Your task to perform on an android device: Go to ESPN.com Image 0: 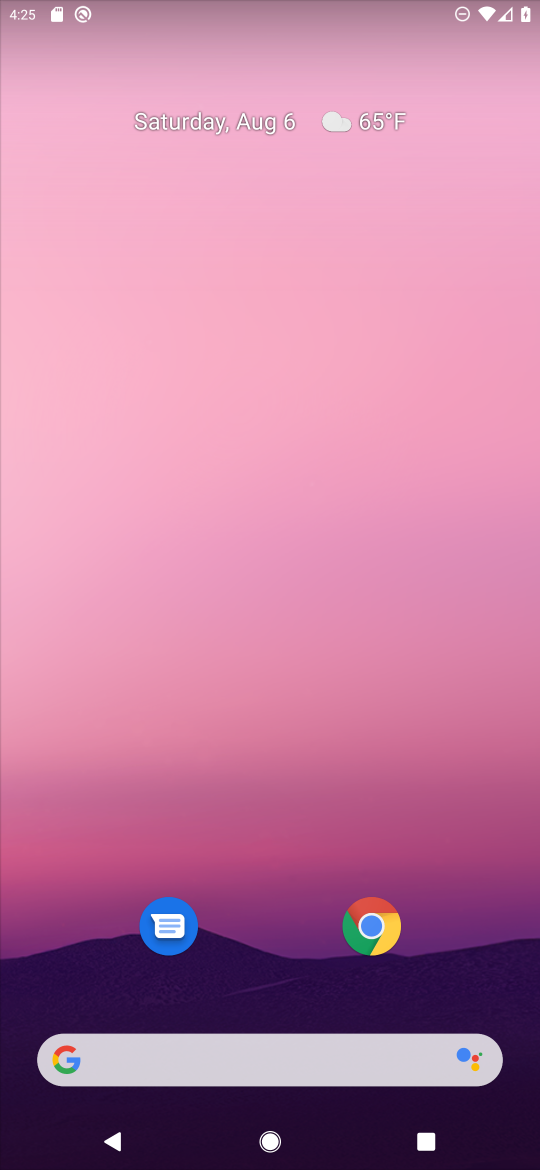
Step 0: click (370, 905)
Your task to perform on an android device: Go to ESPN.com Image 1: 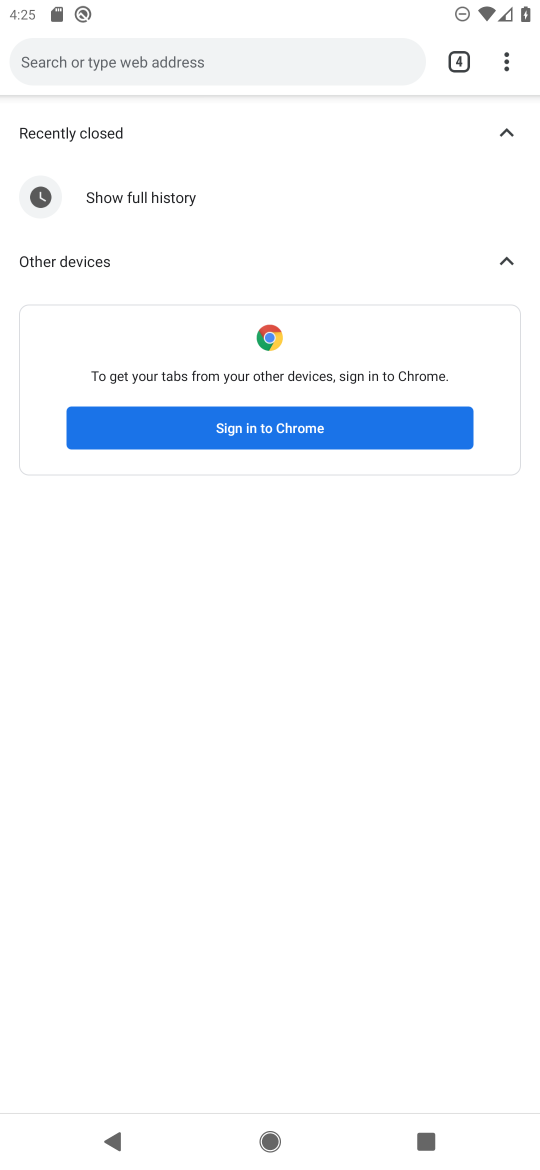
Step 1: click (462, 58)
Your task to perform on an android device: Go to ESPN.com Image 2: 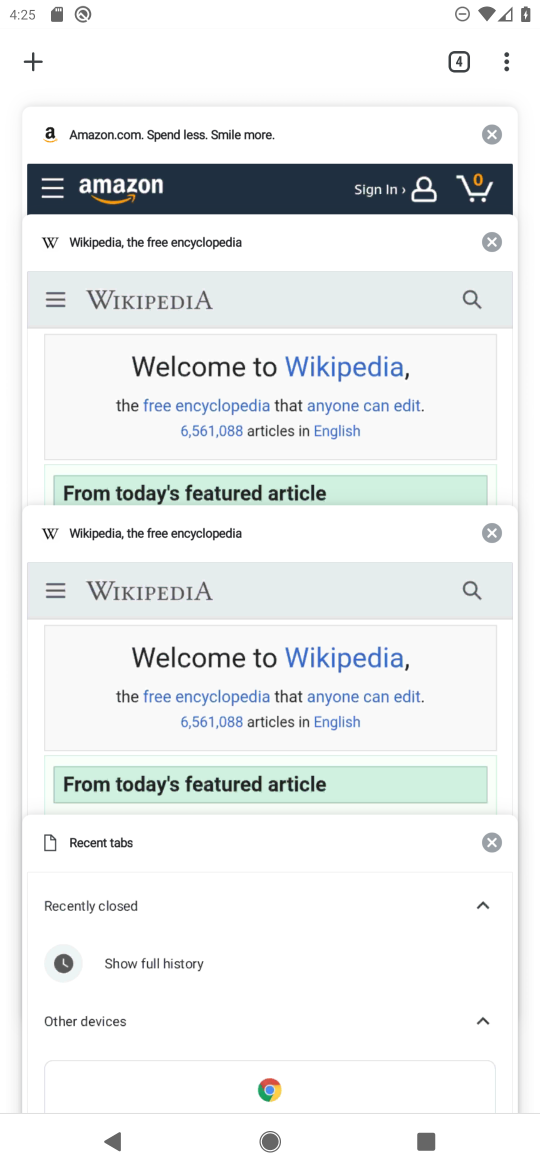
Step 2: click (27, 63)
Your task to perform on an android device: Go to ESPN.com Image 3: 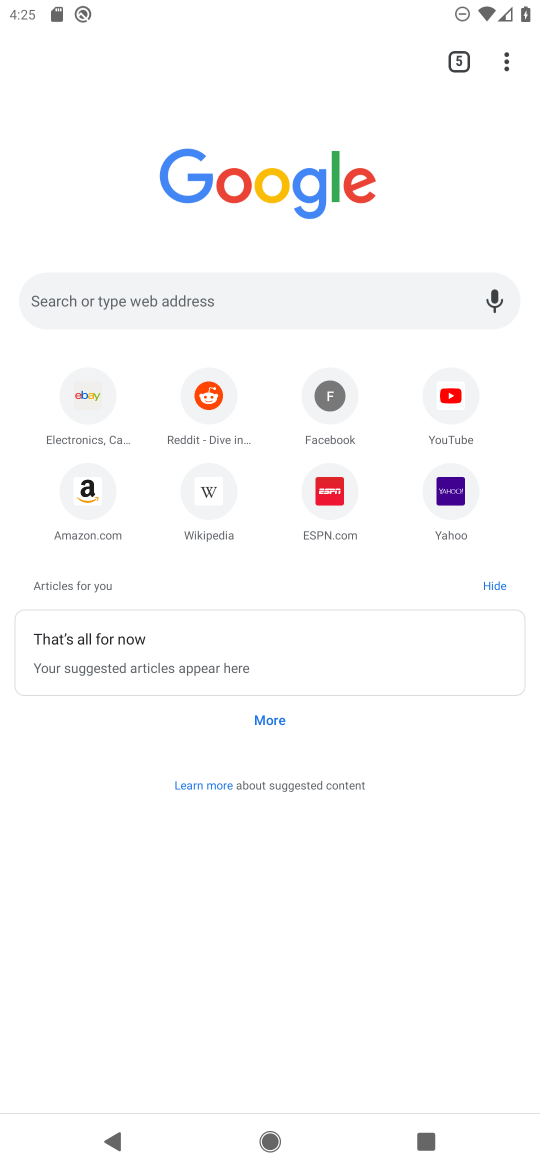
Step 3: click (234, 296)
Your task to perform on an android device: Go to ESPN.com Image 4: 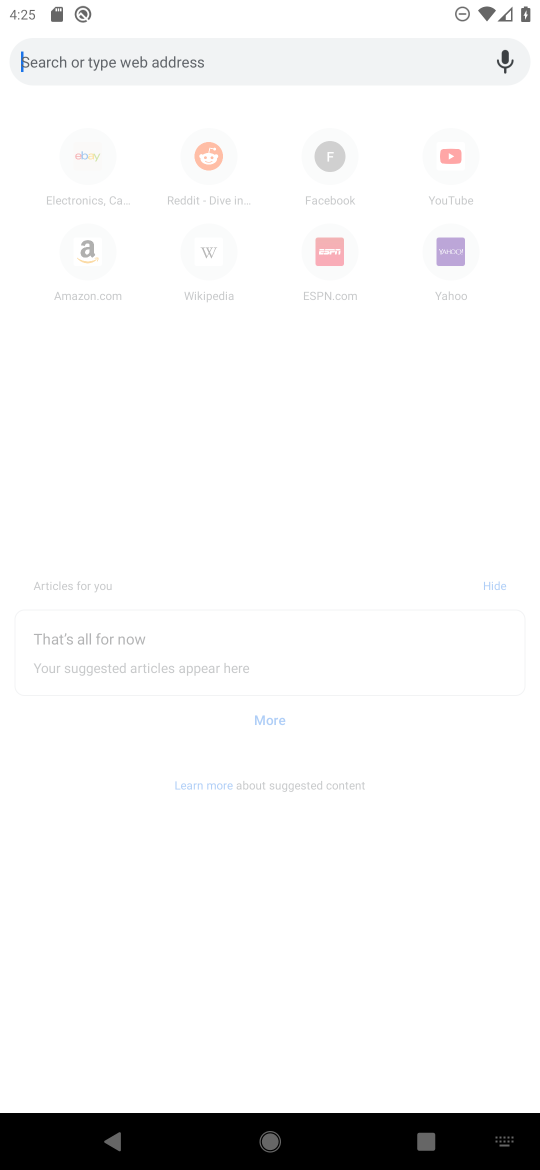
Step 4: type "ESPN.com"
Your task to perform on an android device: Go to ESPN.com Image 5: 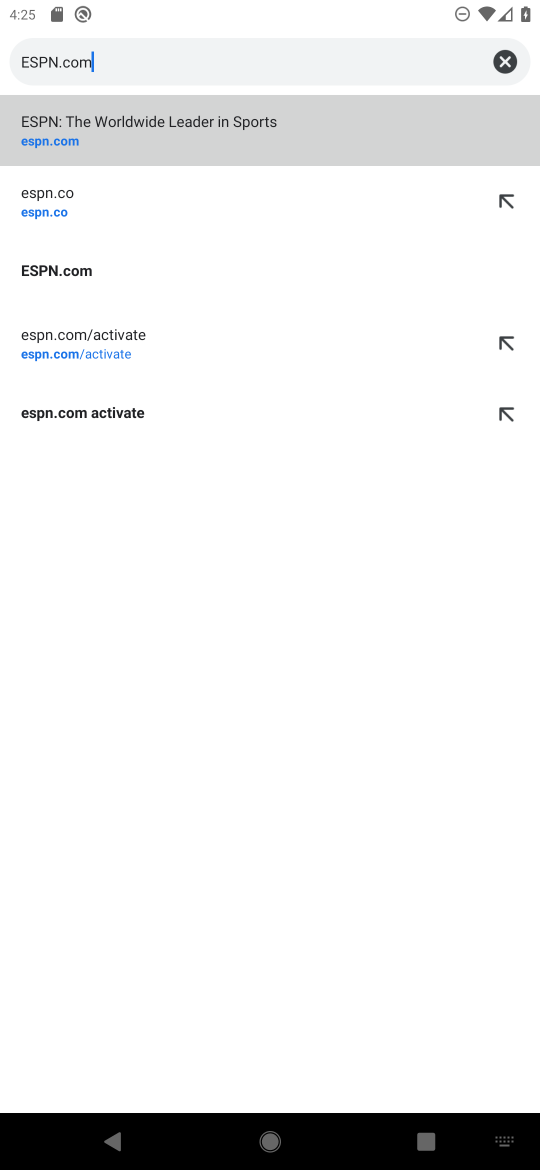
Step 5: type ""
Your task to perform on an android device: Go to ESPN.com Image 6: 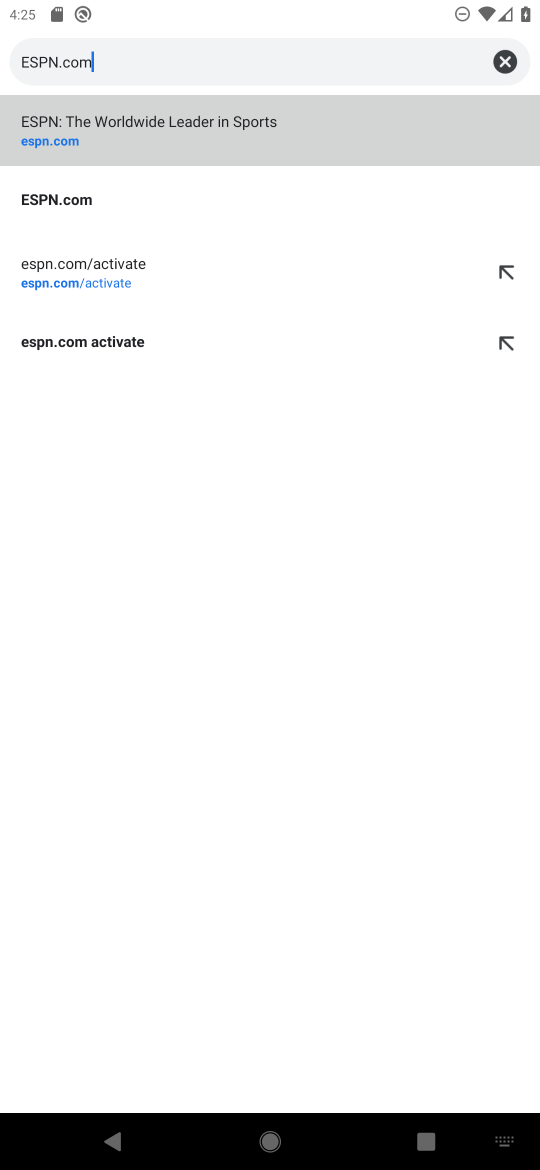
Step 6: click (138, 69)
Your task to perform on an android device: Go to ESPN.com Image 7: 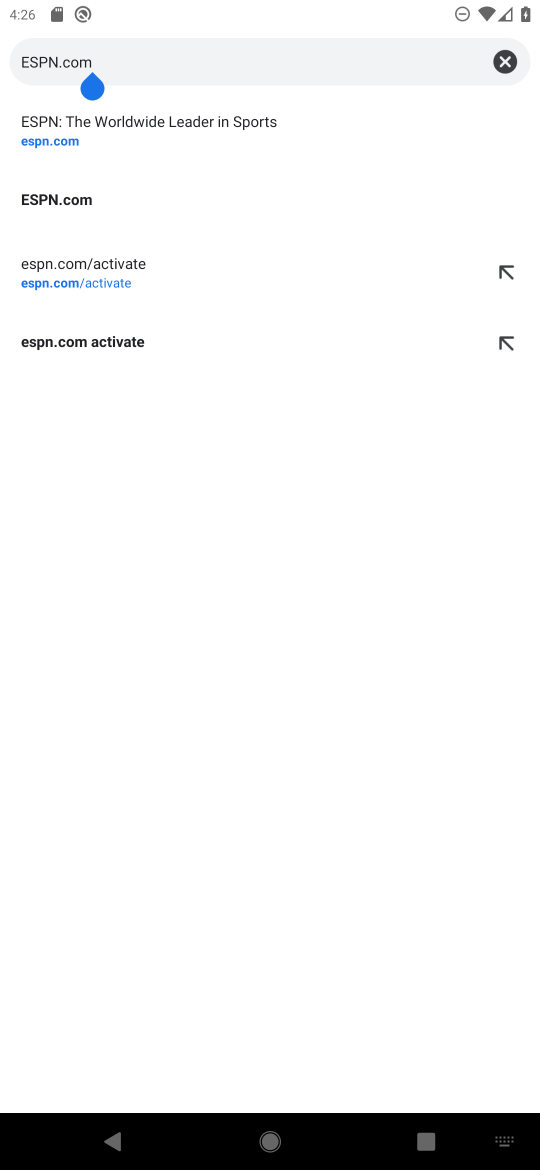
Step 7: click (138, 144)
Your task to perform on an android device: Go to ESPN.com Image 8: 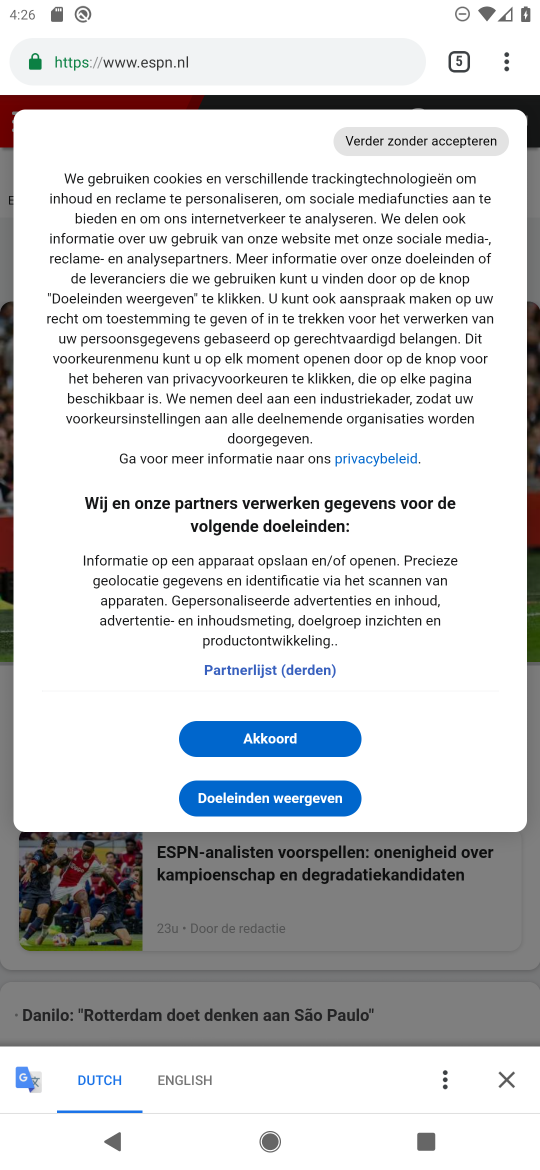
Step 8: task complete